Your task to perform on an android device: open chrome privacy settings Image 0: 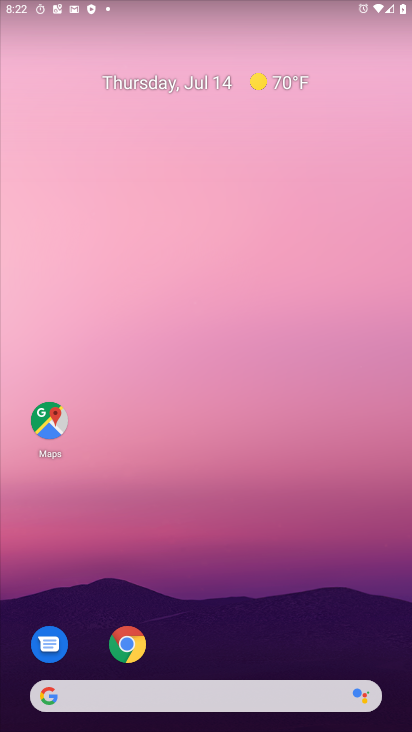
Step 0: click (121, 636)
Your task to perform on an android device: open chrome privacy settings Image 1: 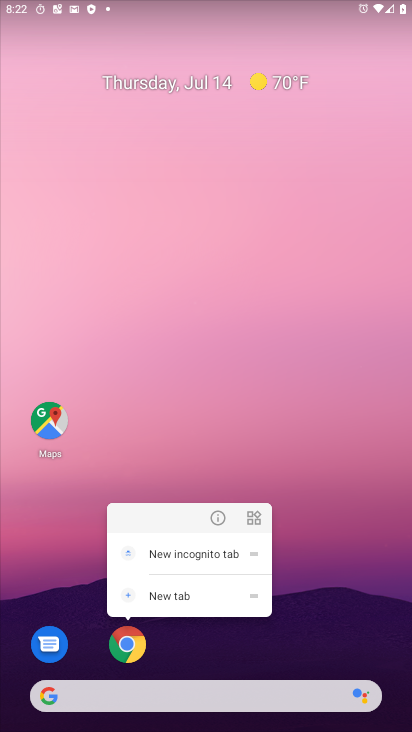
Step 1: click (121, 647)
Your task to perform on an android device: open chrome privacy settings Image 2: 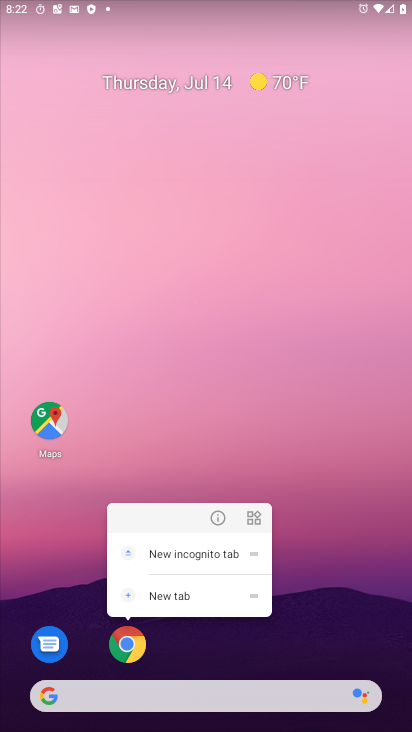
Step 2: click (129, 641)
Your task to perform on an android device: open chrome privacy settings Image 3: 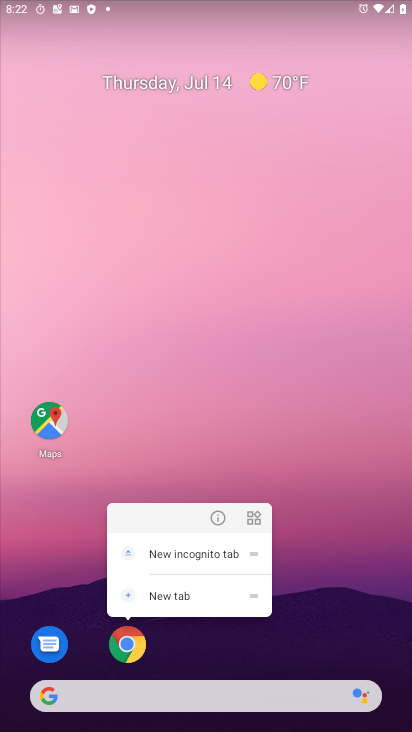
Step 3: click (129, 649)
Your task to perform on an android device: open chrome privacy settings Image 4: 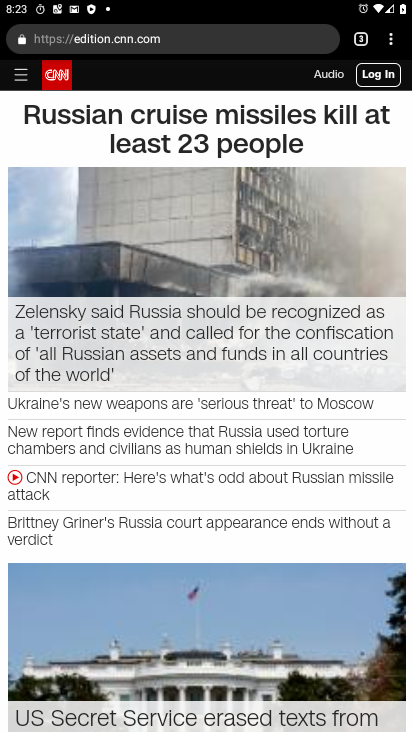
Step 4: drag from (393, 39) to (273, 474)
Your task to perform on an android device: open chrome privacy settings Image 5: 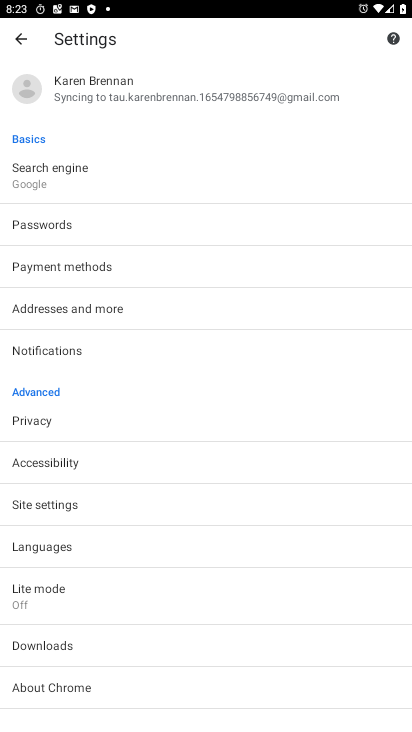
Step 5: click (47, 417)
Your task to perform on an android device: open chrome privacy settings Image 6: 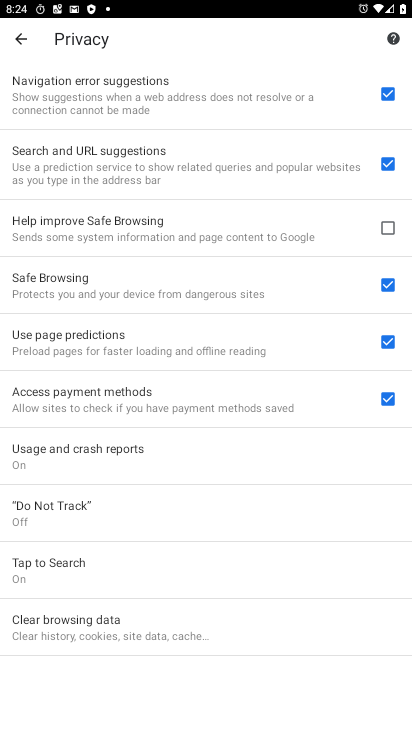
Step 6: task complete